Your task to perform on an android device: Open accessibility settings Image 0: 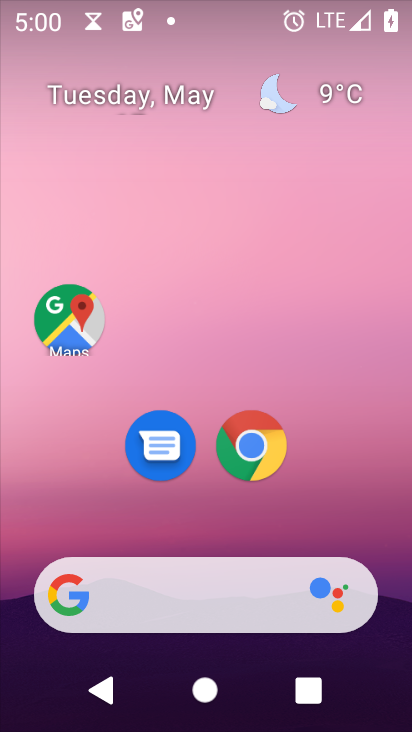
Step 0: drag from (319, 566) to (346, 77)
Your task to perform on an android device: Open accessibility settings Image 1: 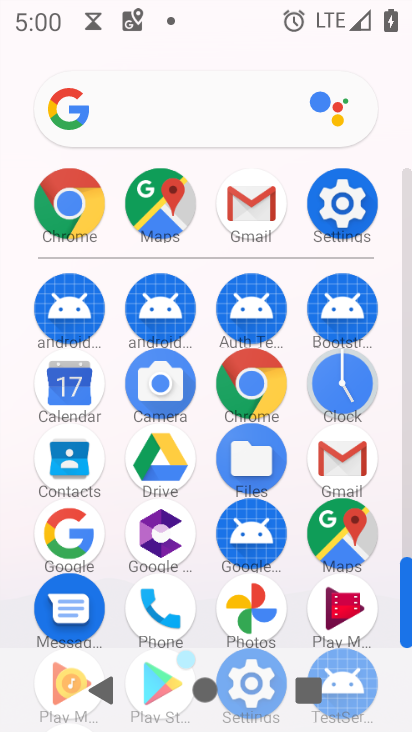
Step 1: click (367, 208)
Your task to perform on an android device: Open accessibility settings Image 2: 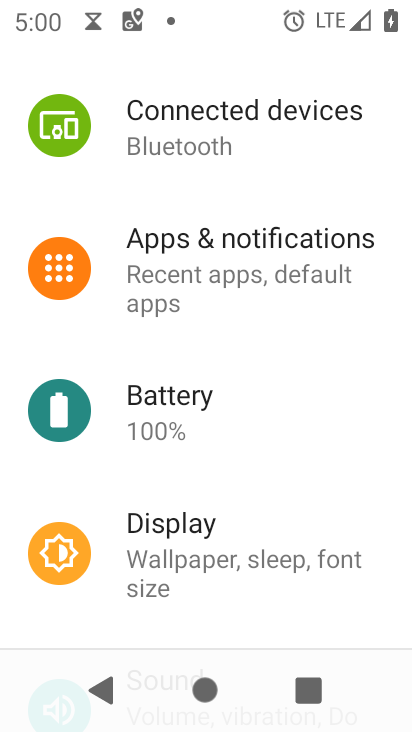
Step 2: drag from (217, 566) to (205, 199)
Your task to perform on an android device: Open accessibility settings Image 3: 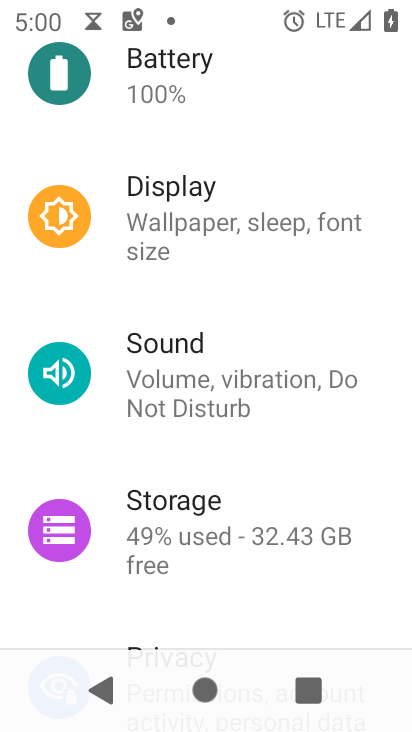
Step 3: drag from (255, 597) to (238, 232)
Your task to perform on an android device: Open accessibility settings Image 4: 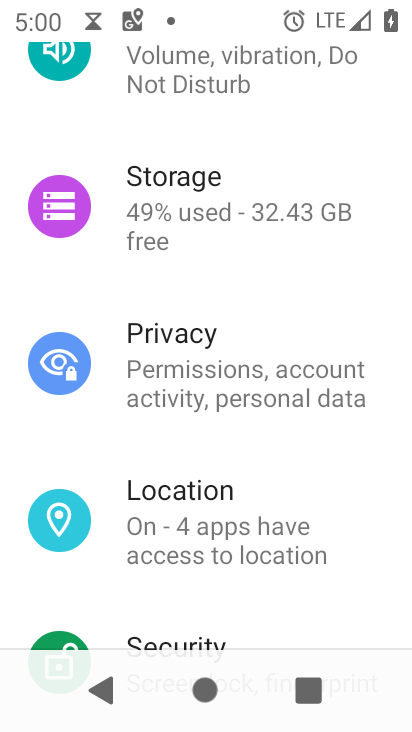
Step 4: drag from (255, 562) to (250, 326)
Your task to perform on an android device: Open accessibility settings Image 5: 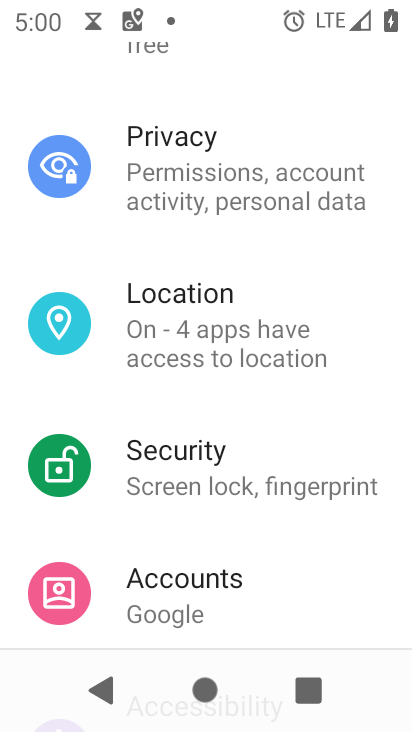
Step 5: drag from (243, 594) to (219, 312)
Your task to perform on an android device: Open accessibility settings Image 6: 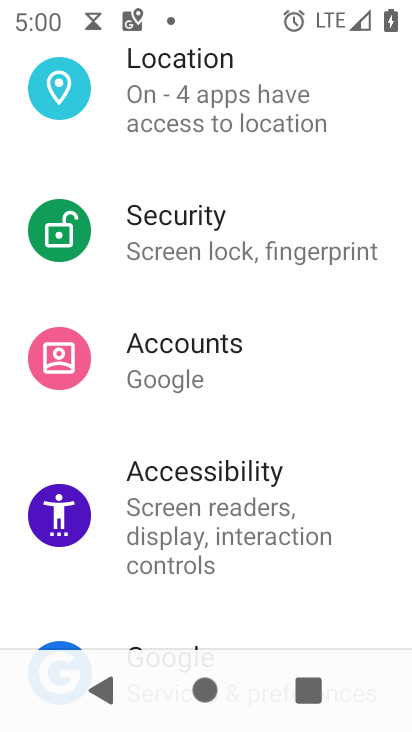
Step 6: click (254, 506)
Your task to perform on an android device: Open accessibility settings Image 7: 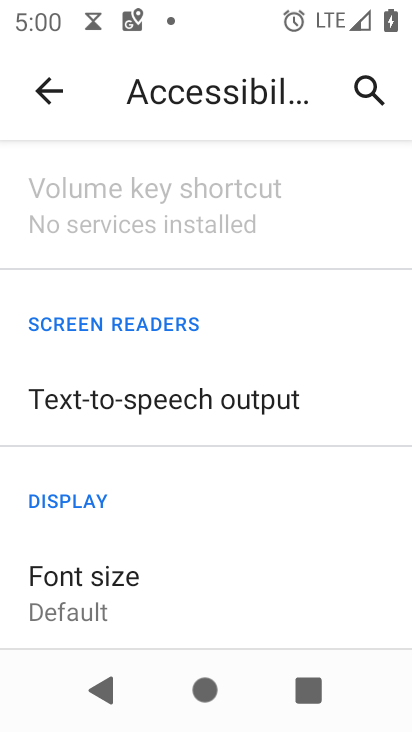
Step 7: task complete